Your task to perform on an android device: Find coffee shops on Maps Image 0: 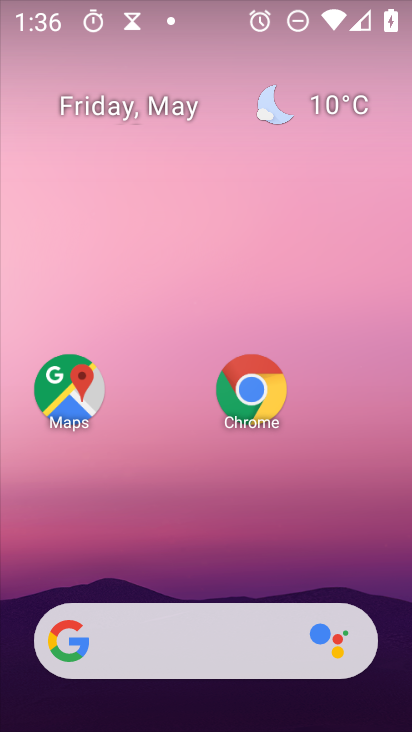
Step 0: press home button
Your task to perform on an android device: Find coffee shops on Maps Image 1: 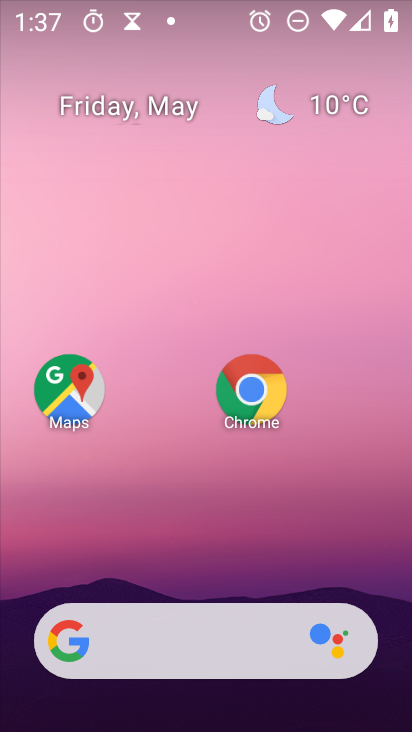
Step 1: click (71, 398)
Your task to perform on an android device: Find coffee shops on Maps Image 2: 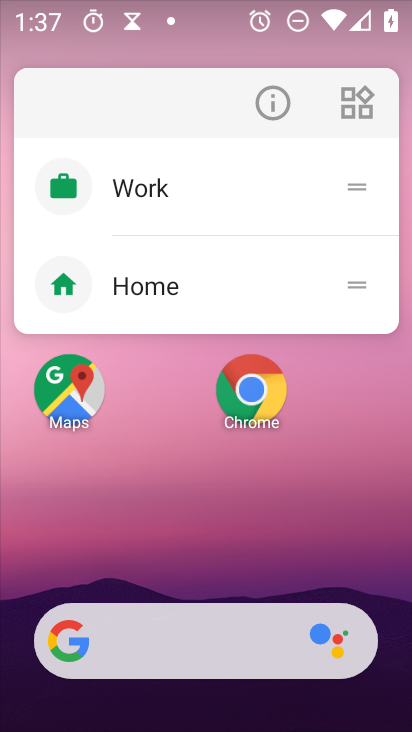
Step 2: click (83, 396)
Your task to perform on an android device: Find coffee shops on Maps Image 3: 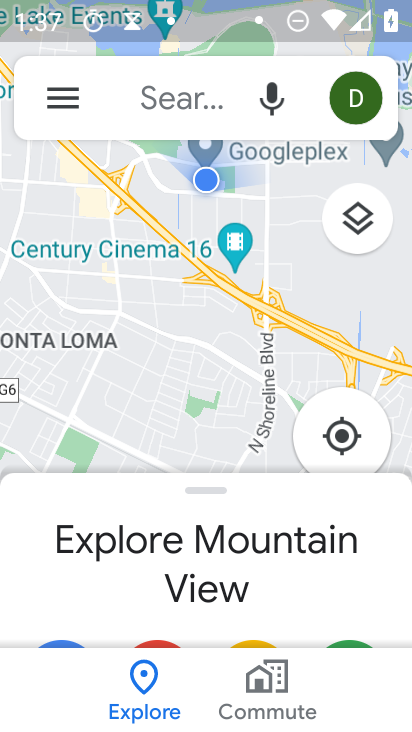
Step 3: click (201, 109)
Your task to perform on an android device: Find coffee shops on Maps Image 4: 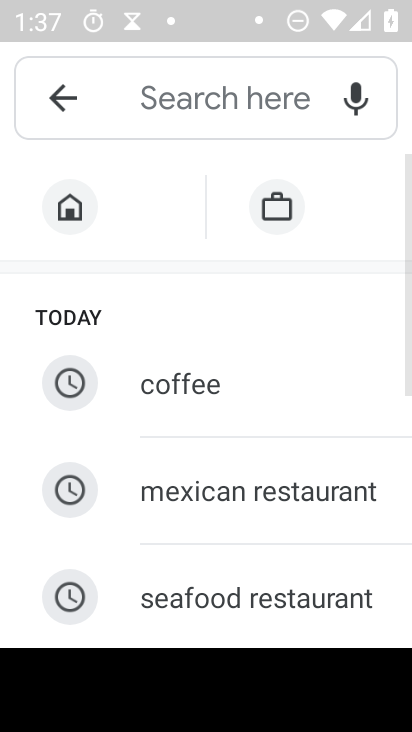
Step 4: click (163, 374)
Your task to perform on an android device: Find coffee shops on Maps Image 5: 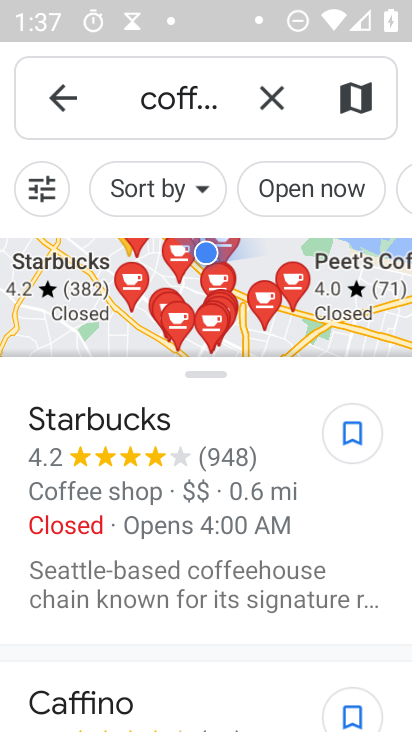
Step 5: task complete